Your task to perform on an android device: change timer sound Image 0: 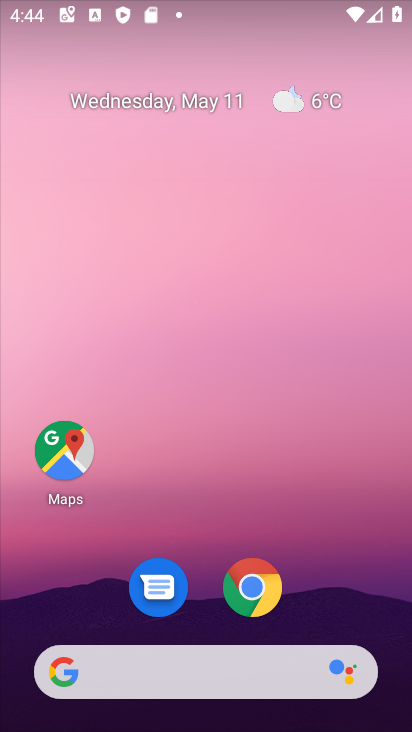
Step 0: drag from (284, 586) to (285, 105)
Your task to perform on an android device: change timer sound Image 1: 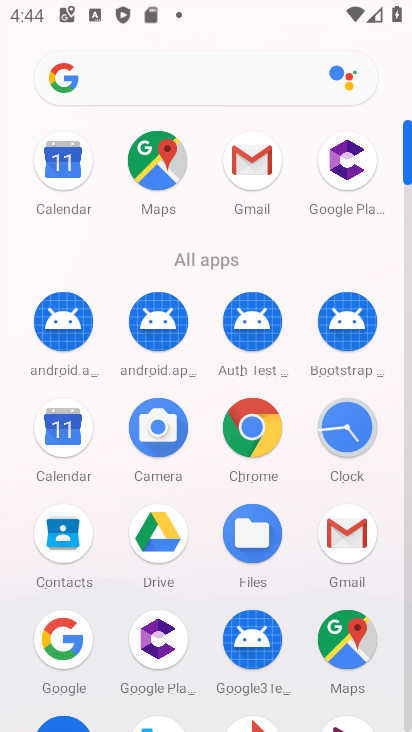
Step 1: drag from (195, 575) to (190, 280)
Your task to perform on an android device: change timer sound Image 2: 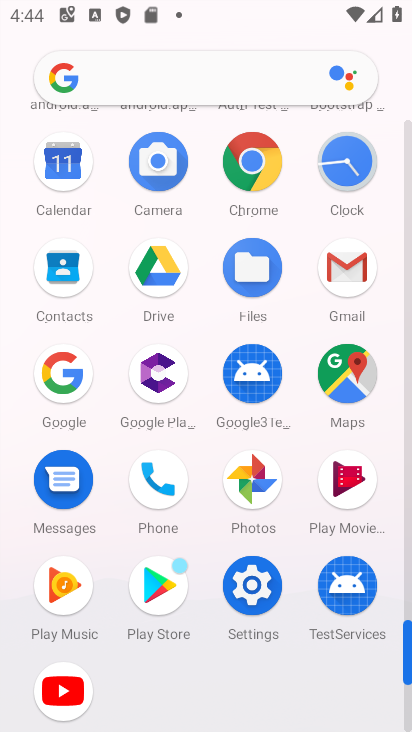
Step 2: click (353, 162)
Your task to perform on an android device: change timer sound Image 3: 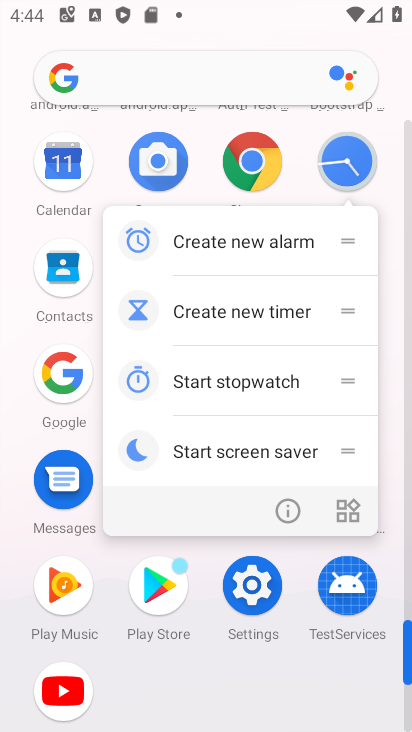
Step 3: click (353, 162)
Your task to perform on an android device: change timer sound Image 4: 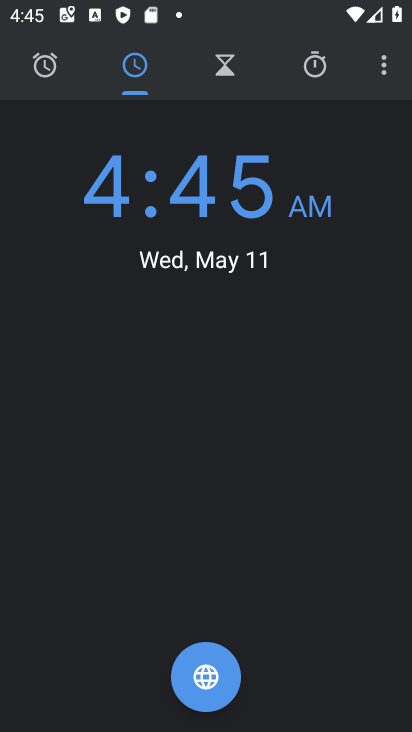
Step 4: click (385, 67)
Your task to perform on an android device: change timer sound Image 5: 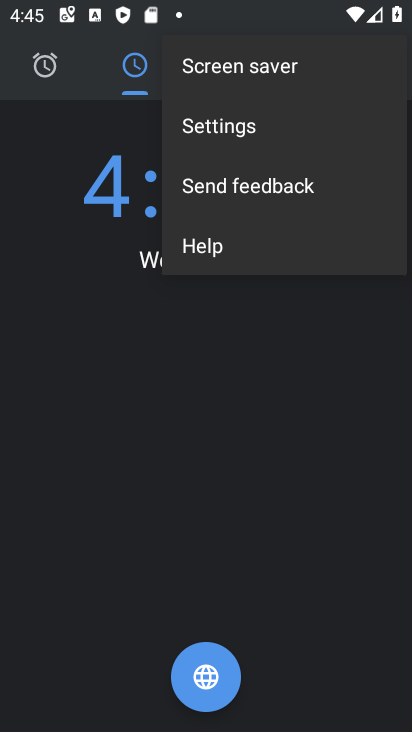
Step 5: click (239, 130)
Your task to perform on an android device: change timer sound Image 6: 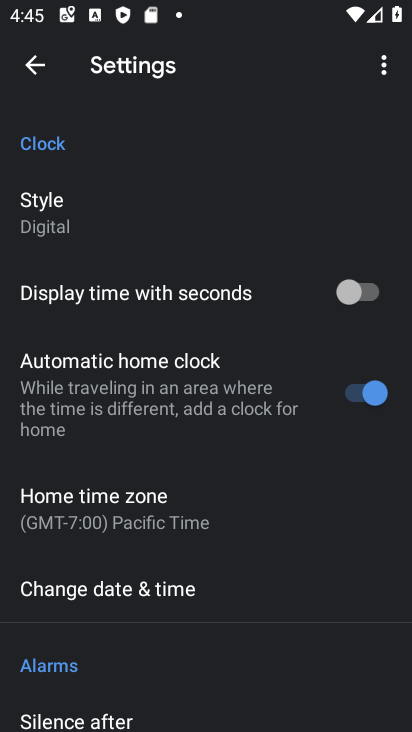
Step 6: drag from (245, 641) to (259, 372)
Your task to perform on an android device: change timer sound Image 7: 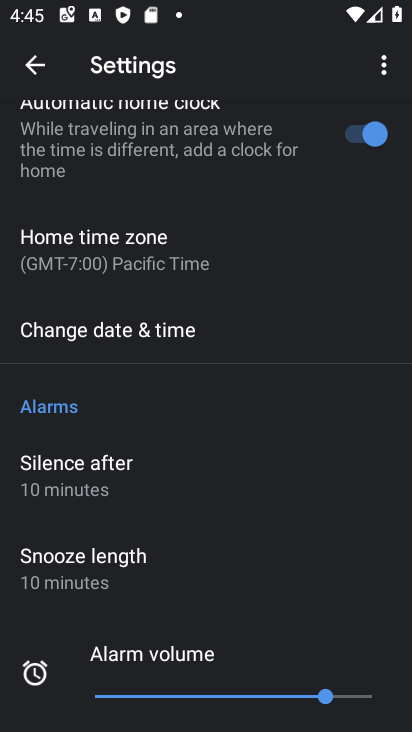
Step 7: drag from (267, 511) to (264, 187)
Your task to perform on an android device: change timer sound Image 8: 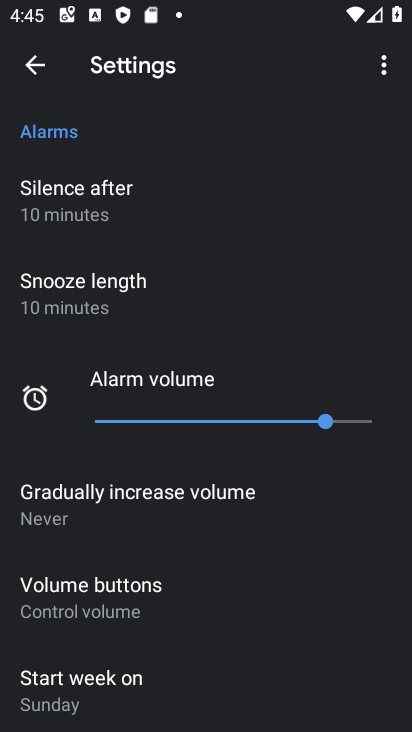
Step 8: drag from (230, 622) to (221, 232)
Your task to perform on an android device: change timer sound Image 9: 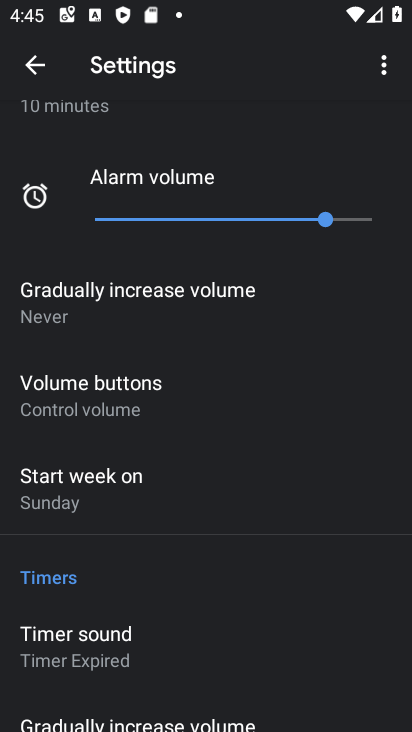
Step 9: click (82, 643)
Your task to perform on an android device: change timer sound Image 10: 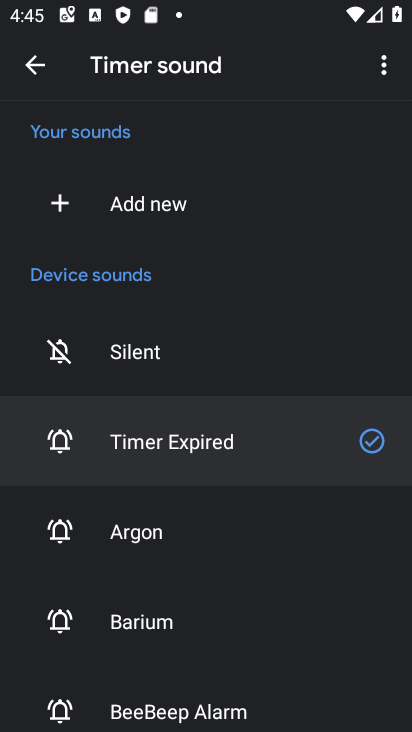
Step 10: click (149, 529)
Your task to perform on an android device: change timer sound Image 11: 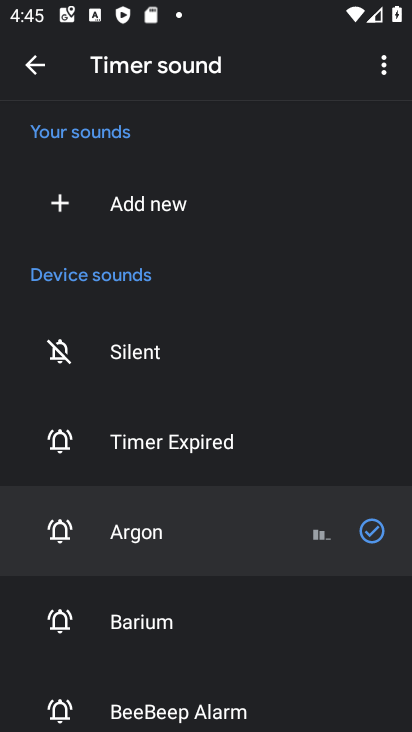
Step 11: task complete